Your task to perform on an android device: toggle data saver in the chrome app Image 0: 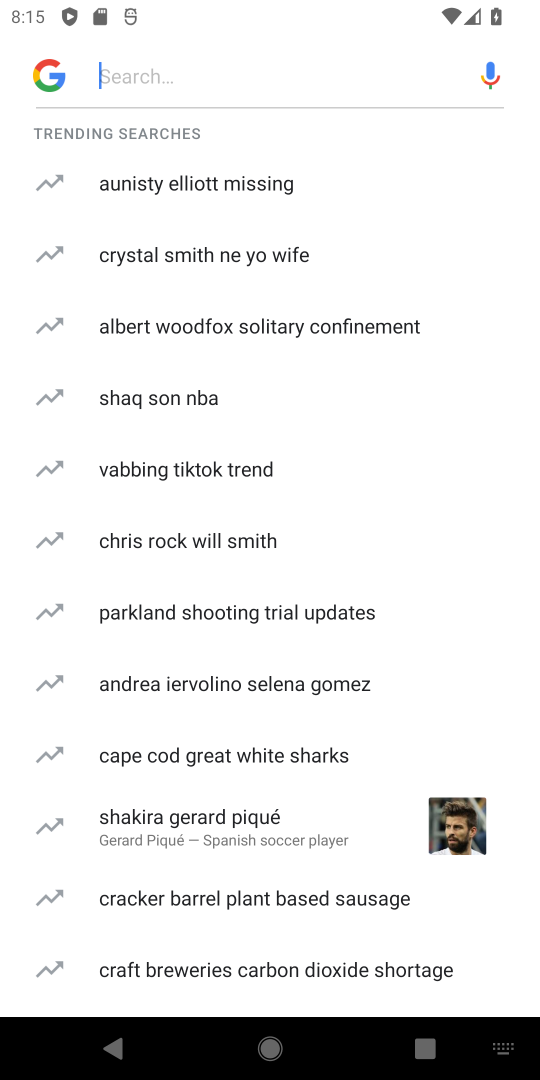
Step 0: press home button
Your task to perform on an android device: toggle data saver in the chrome app Image 1: 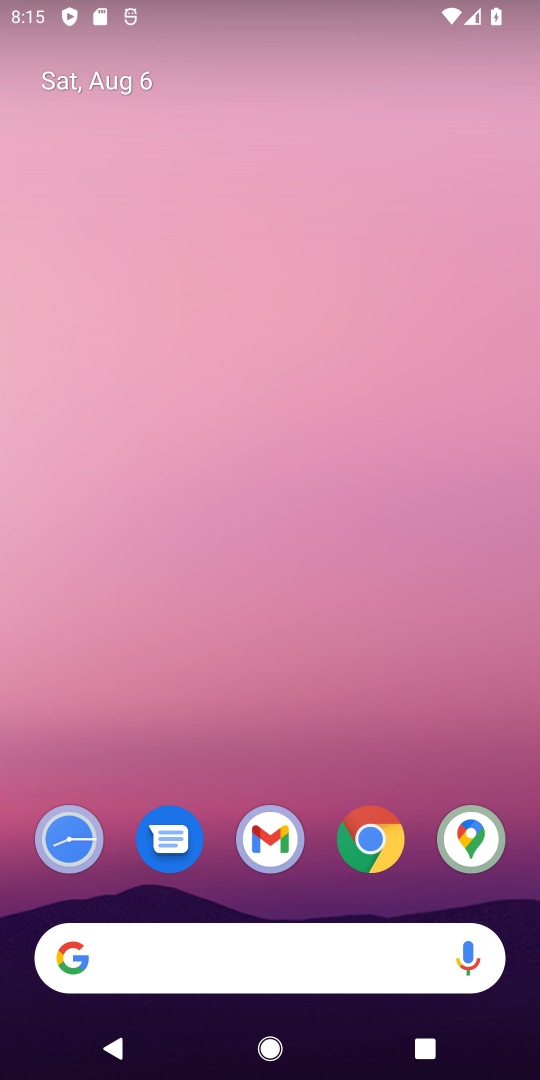
Step 1: click (390, 842)
Your task to perform on an android device: toggle data saver in the chrome app Image 2: 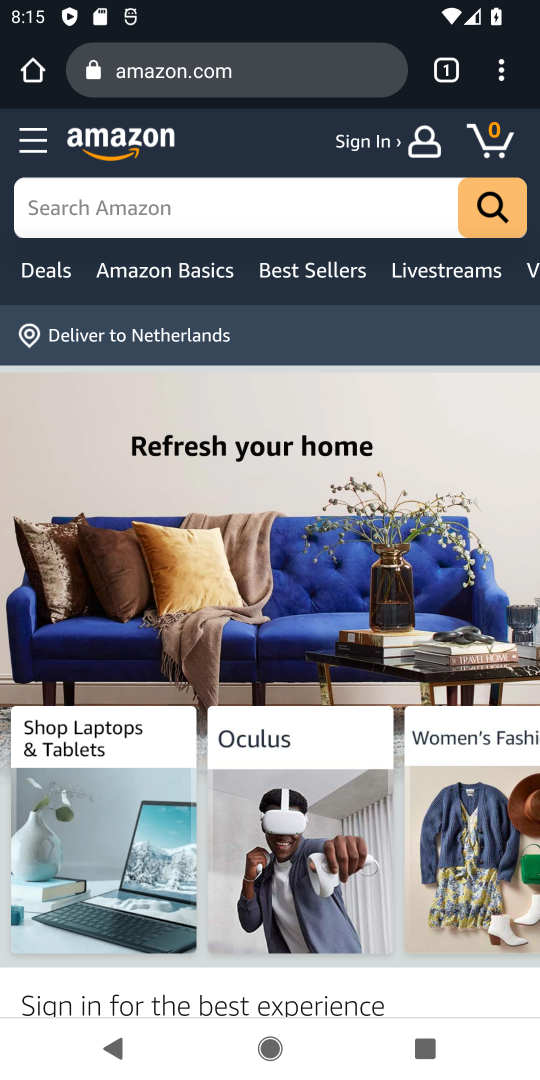
Step 2: click (501, 75)
Your task to perform on an android device: toggle data saver in the chrome app Image 3: 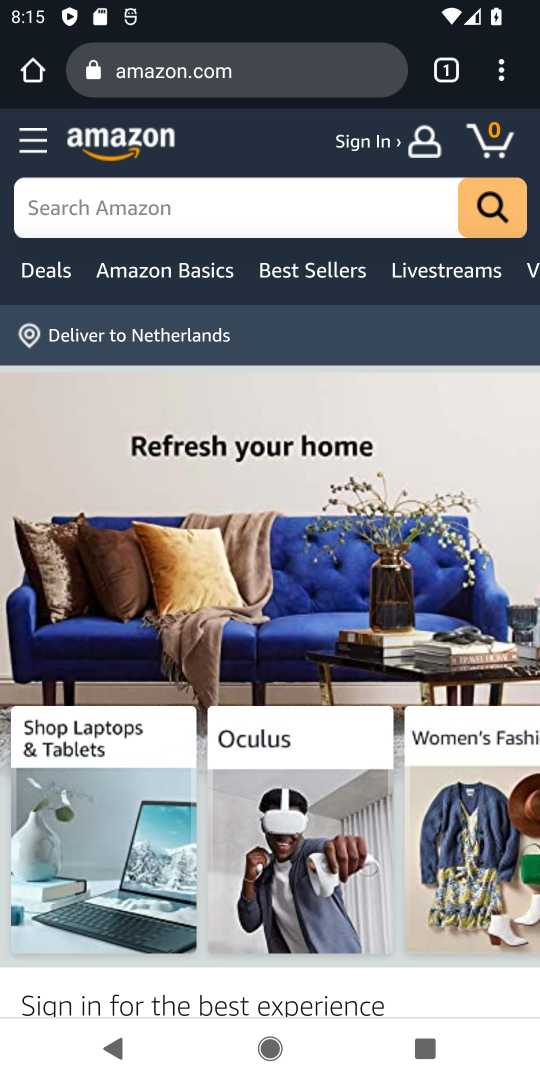
Step 3: click (503, 65)
Your task to perform on an android device: toggle data saver in the chrome app Image 4: 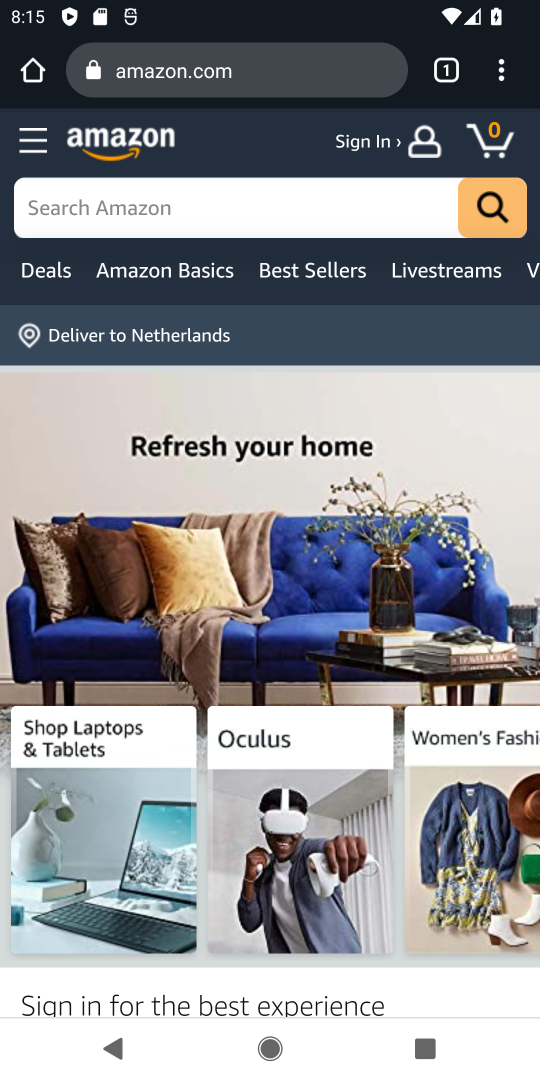
Step 4: click (502, 82)
Your task to perform on an android device: toggle data saver in the chrome app Image 5: 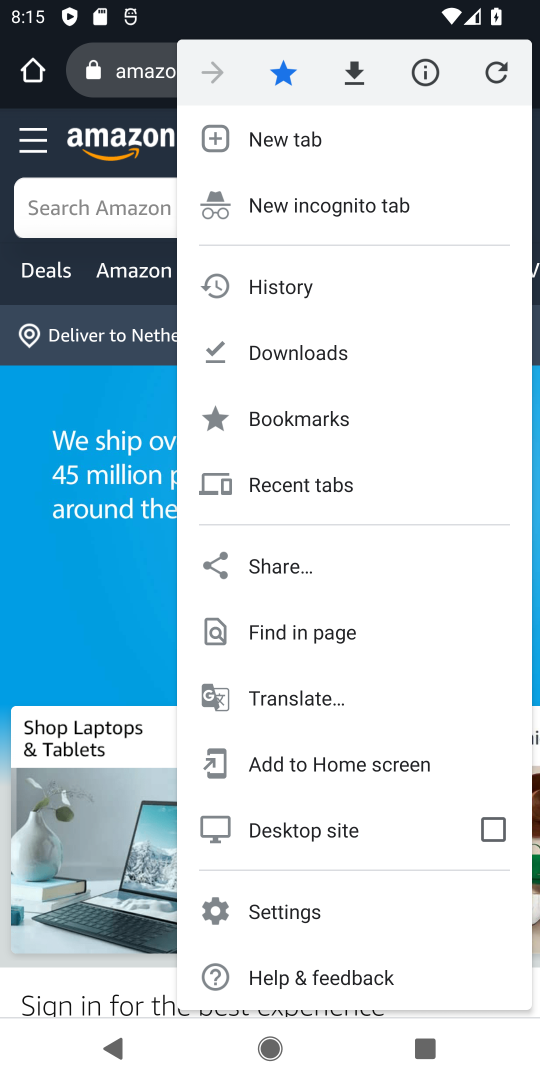
Step 5: click (311, 896)
Your task to perform on an android device: toggle data saver in the chrome app Image 6: 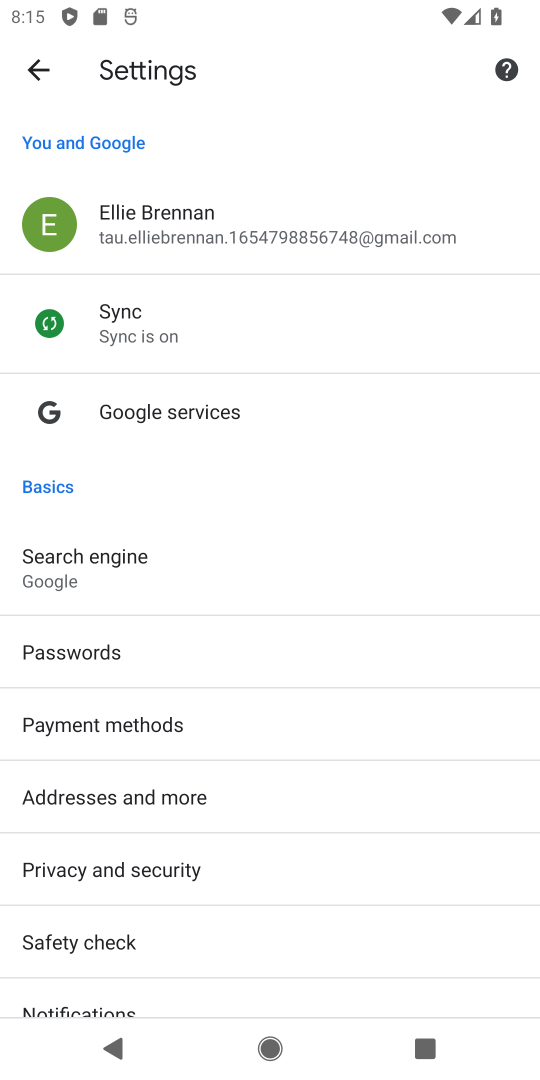
Step 6: drag from (248, 911) to (193, 517)
Your task to perform on an android device: toggle data saver in the chrome app Image 7: 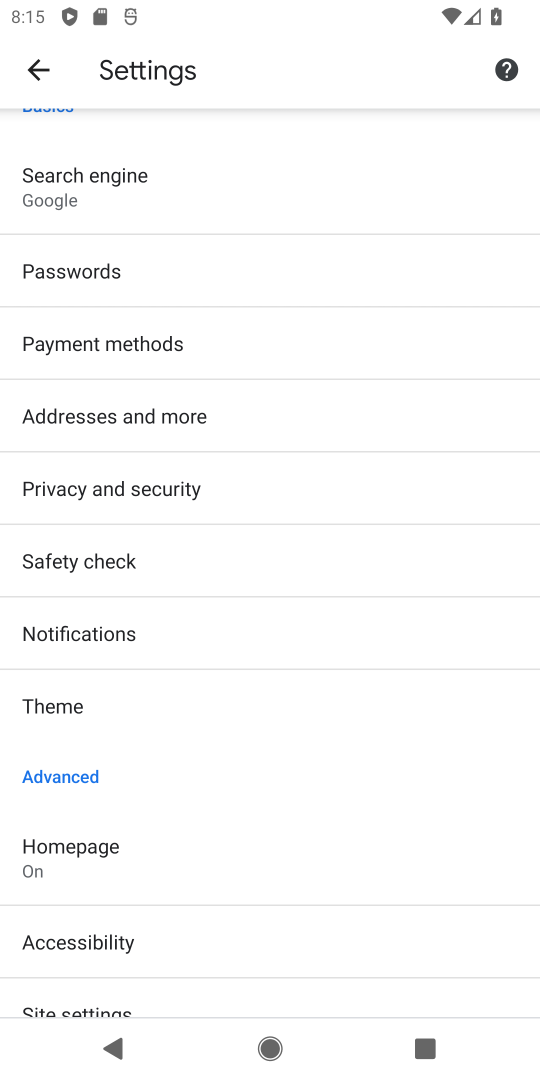
Step 7: drag from (239, 879) to (191, 452)
Your task to perform on an android device: toggle data saver in the chrome app Image 8: 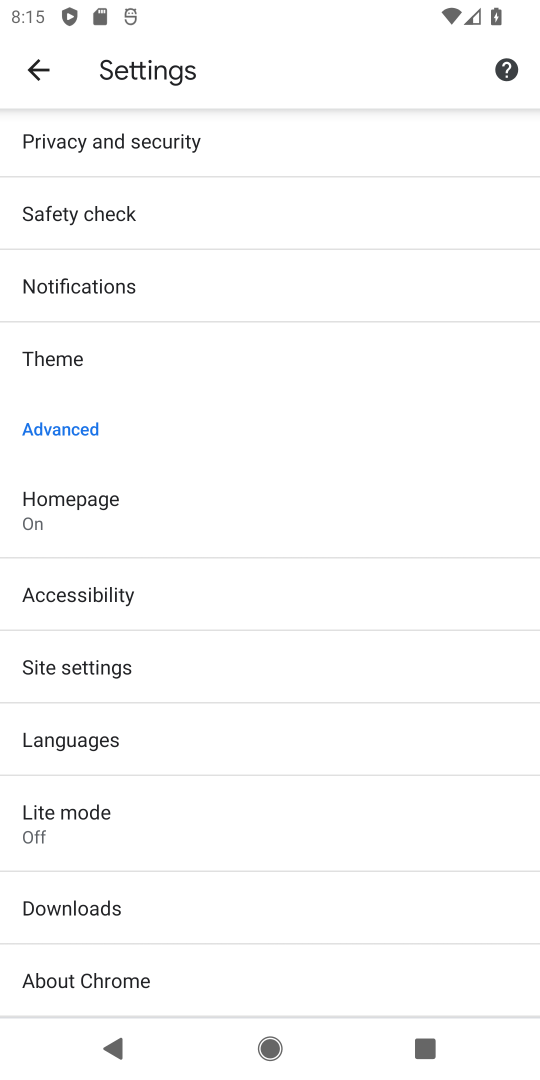
Step 8: click (206, 816)
Your task to perform on an android device: toggle data saver in the chrome app Image 9: 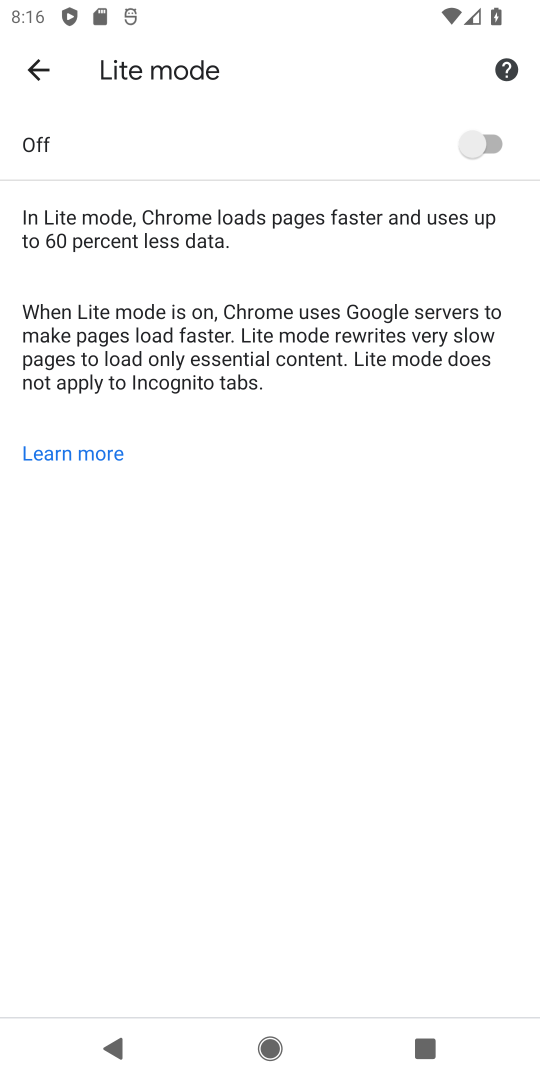
Step 9: click (481, 139)
Your task to perform on an android device: toggle data saver in the chrome app Image 10: 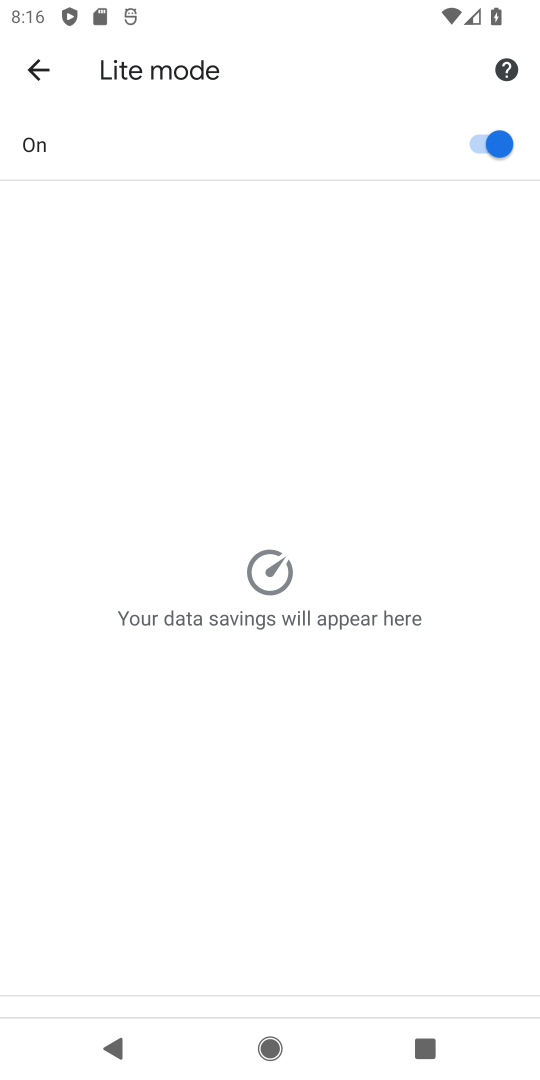
Step 10: task complete